Your task to perform on an android device: change the upload size in google photos Image 0: 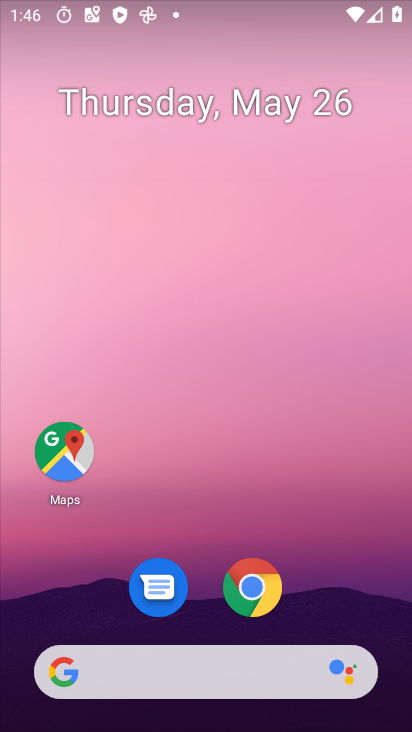
Step 0: drag from (369, 625) to (360, 255)
Your task to perform on an android device: change the upload size in google photos Image 1: 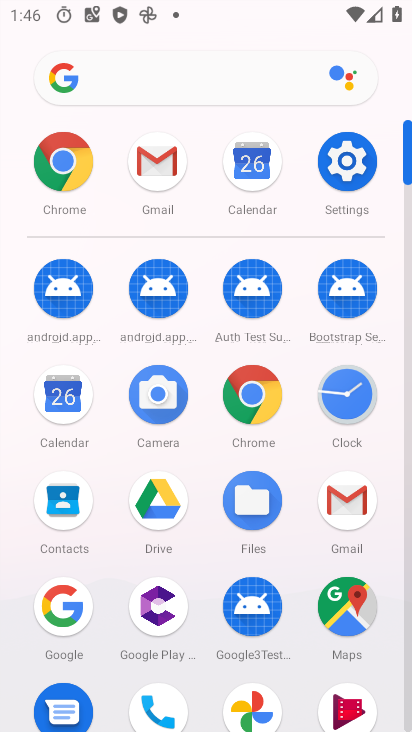
Step 1: drag from (385, 573) to (383, 340)
Your task to perform on an android device: change the upload size in google photos Image 2: 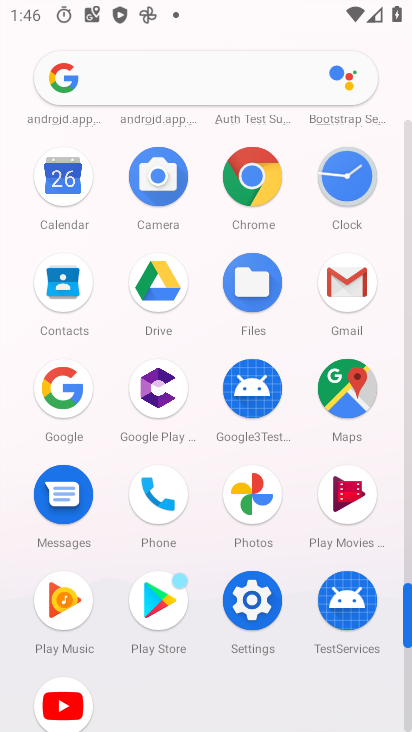
Step 2: click (259, 503)
Your task to perform on an android device: change the upload size in google photos Image 3: 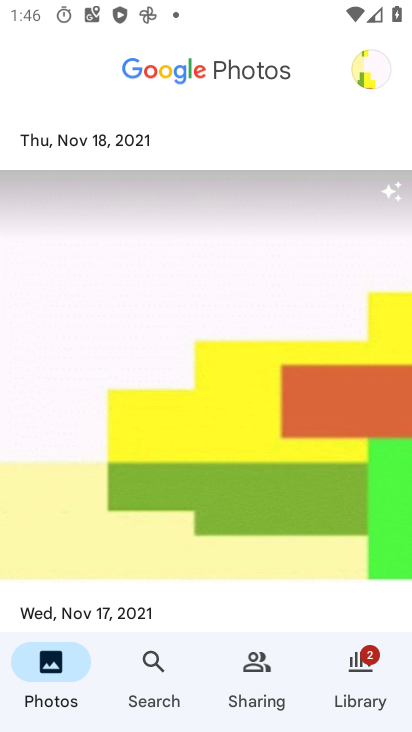
Step 3: click (373, 75)
Your task to perform on an android device: change the upload size in google photos Image 4: 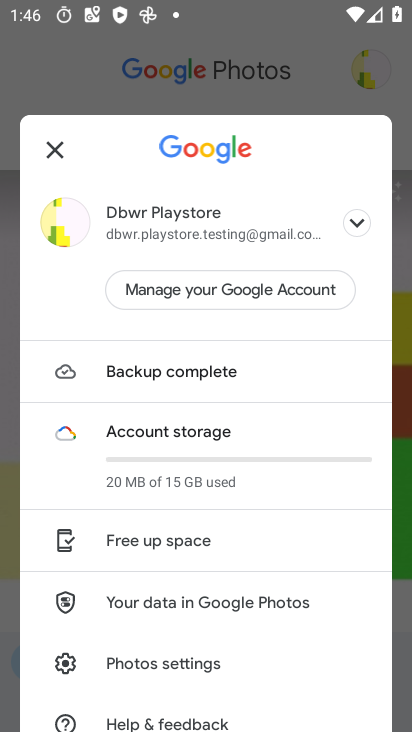
Step 4: drag from (313, 393) to (311, 225)
Your task to perform on an android device: change the upload size in google photos Image 5: 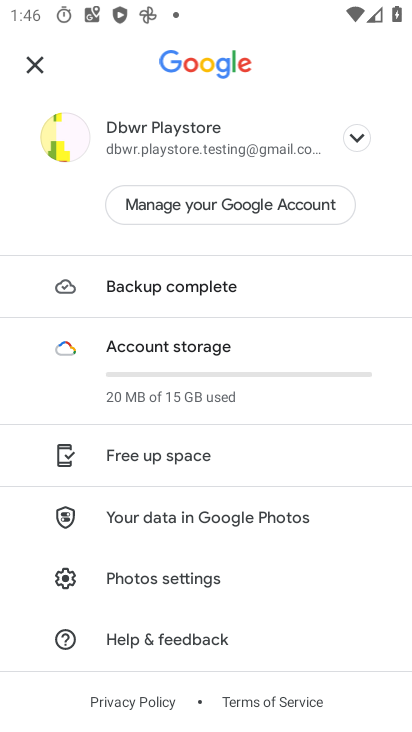
Step 5: click (226, 577)
Your task to perform on an android device: change the upload size in google photos Image 6: 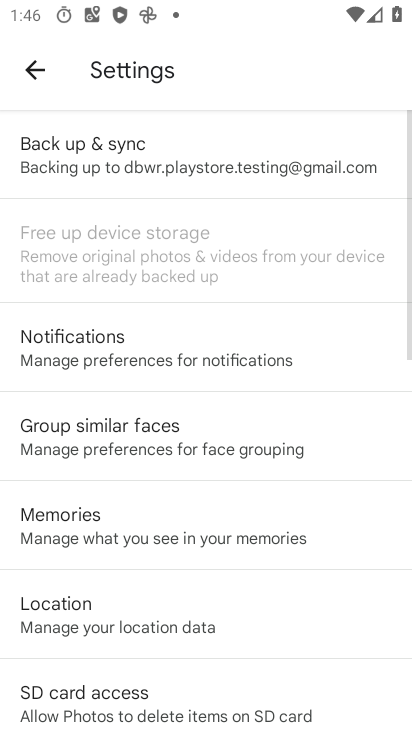
Step 6: drag from (308, 589) to (312, 496)
Your task to perform on an android device: change the upload size in google photos Image 7: 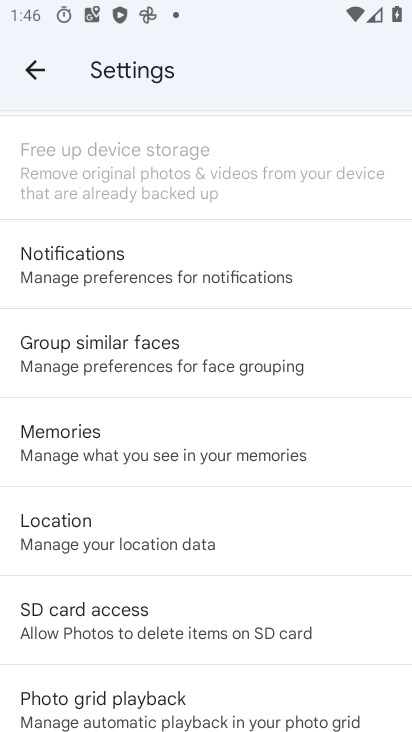
Step 7: drag from (311, 555) to (325, 468)
Your task to perform on an android device: change the upload size in google photos Image 8: 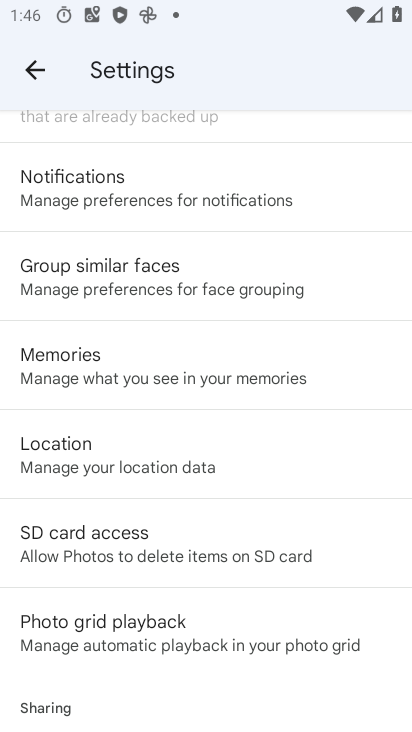
Step 8: drag from (324, 543) to (333, 477)
Your task to perform on an android device: change the upload size in google photos Image 9: 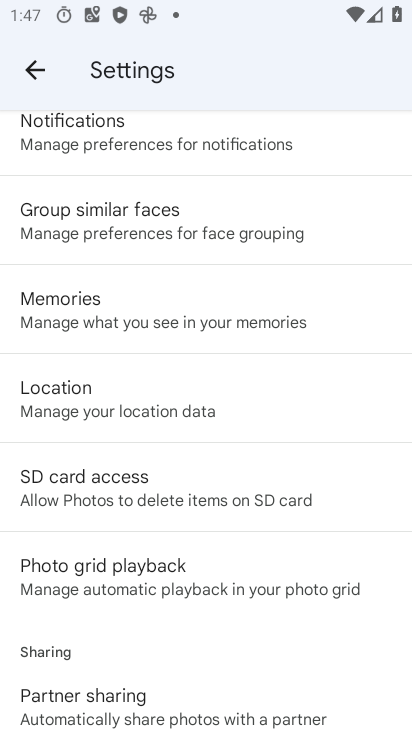
Step 9: drag from (319, 542) to (333, 473)
Your task to perform on an android device: change the upload size in google photos Image 10: 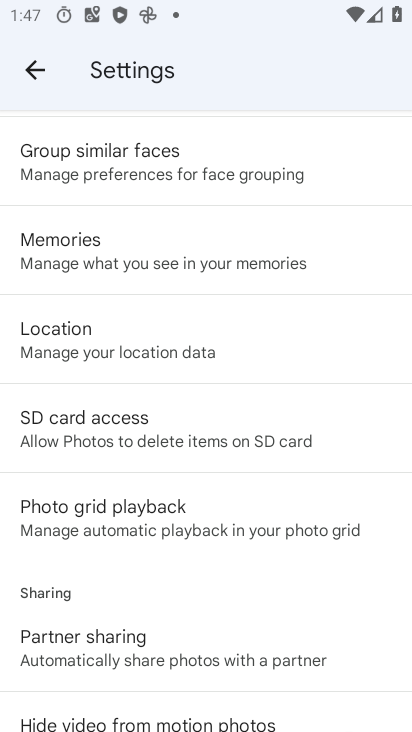
Step 10: drag from (325, 538) to (330, 467)
Your task to perform on an android device: change the upload size in google photos Image 11: 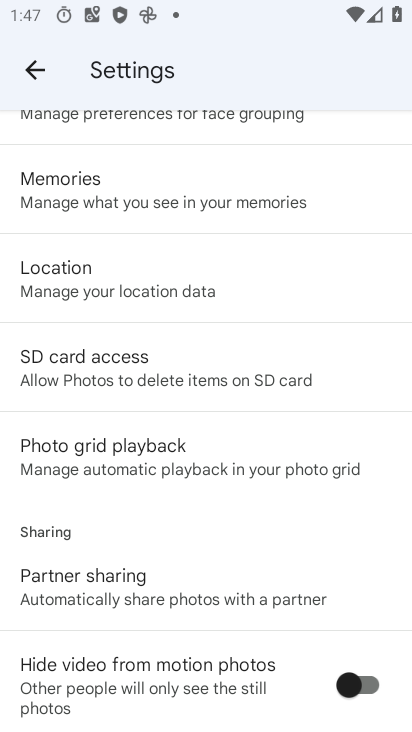
Step 11: drag from (332, 570) to (338, 496)
Your task to perform on an android device: change the upload size in google photos Image 12: 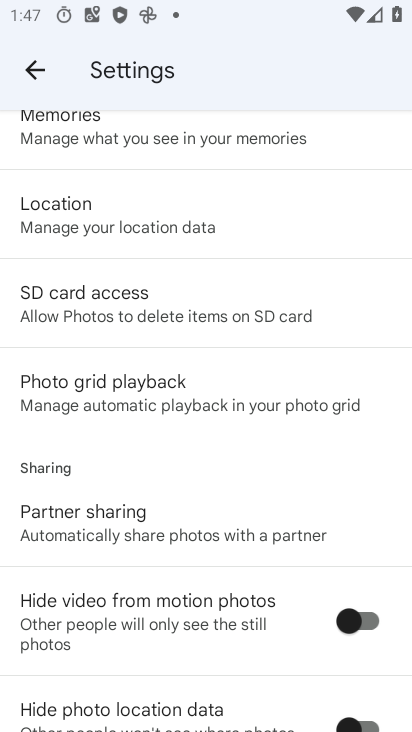
Step 12: drag from (316, 556) to (318, 504)
Your task to perform on an android device: change the upload size in google photos Image 13: 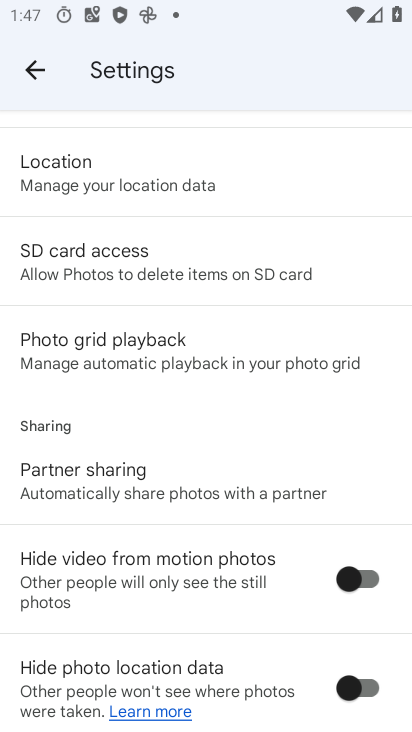
Step 13: drag from (300, 549) to (309, 508)
Your task to perform on an android device: change the upload size in google photos Image 14: 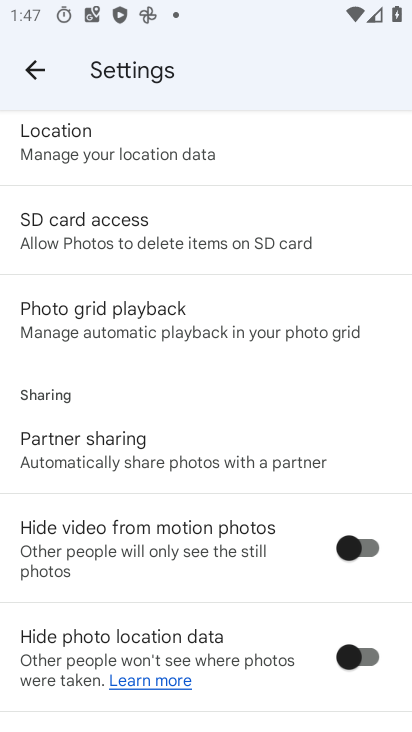
Step 14: drag from (286, 560) to (304, 506)
Your task to perform on an android device: change the upload size in google photos Image 15: 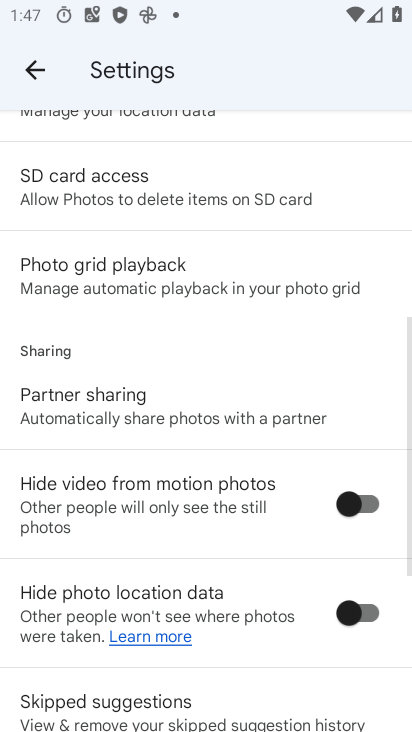
Step 15: drag from (322, 343) to (313, 421)
Your task to perform on an android device: change the upload size in google photos Image 16: 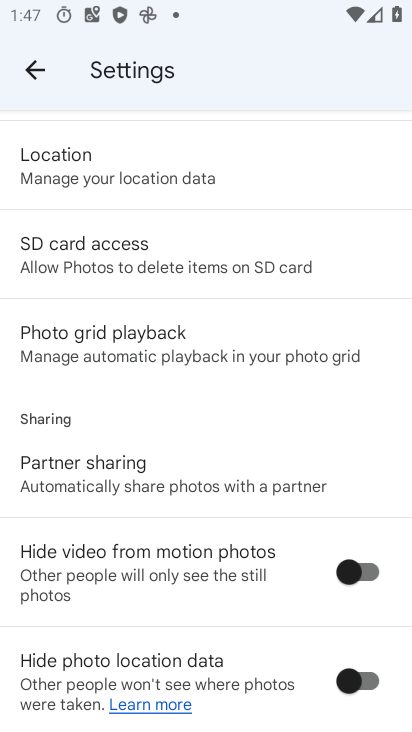
Step 16: drag from (324, 298) to (320, 372)
Your task to perform on an android device: change the upload size in google photos Image 17: 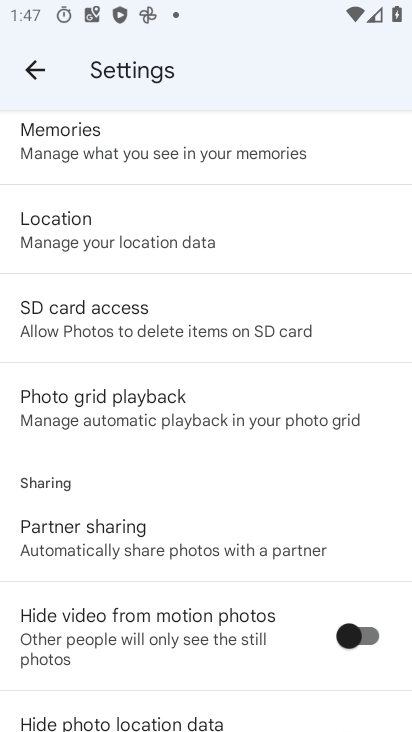
Step 17: drag from (340, 295) to (340, 381)
Your task to perform on an android device: change the upload size in google photos Image 18: 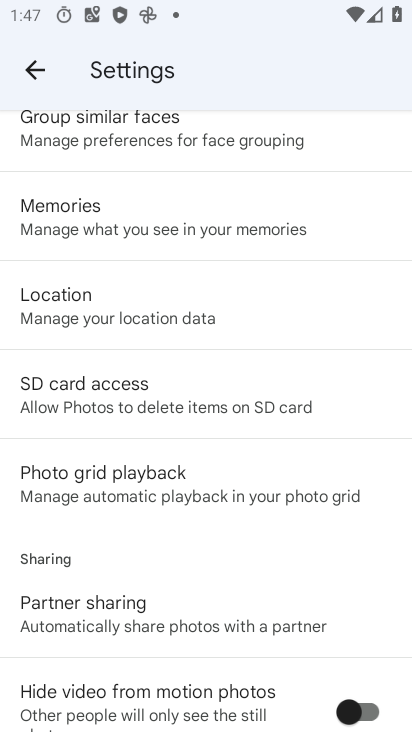
Step 18: drag from (350, 300) to (348, 370)
Your task to perform on an android device: change the upload size in google photos Image 19: 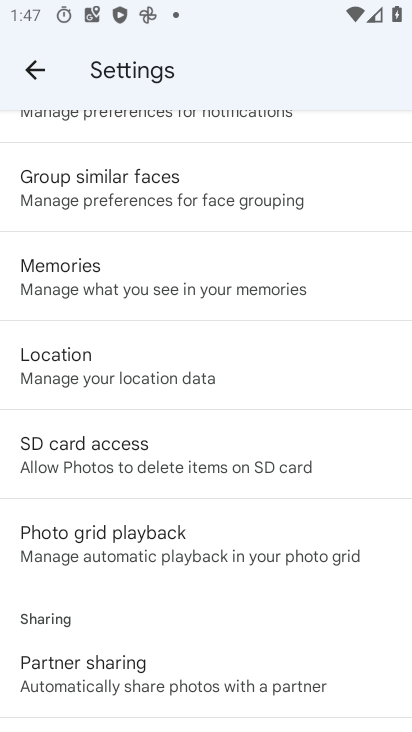
Step 19: drag from (350, 251) to (352, 318)
Your task to perform on an android device: change the upload size in google photos Image 20: 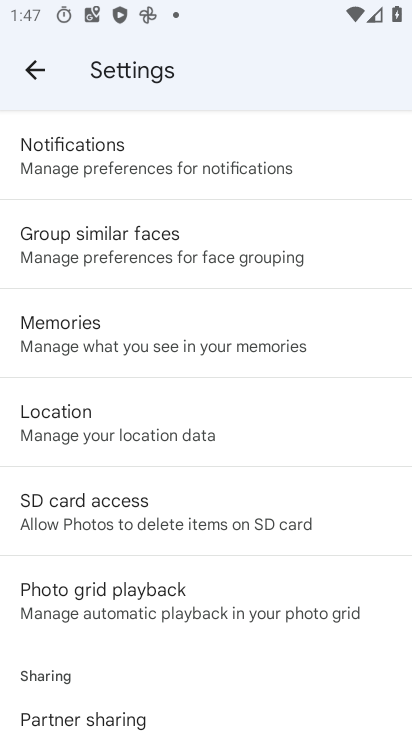
Step 20: drag from (357, 257) to (357, 324)
Your task to perform on an android device: change the upload size in google photos Image 21: 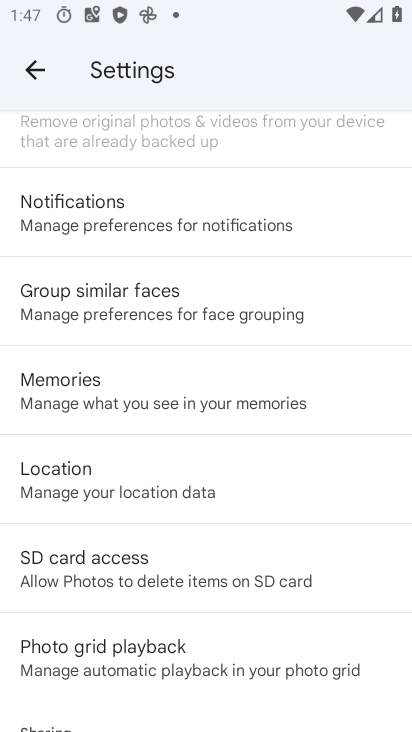
Step 21: drag from (362, 230) to (363, 315)
Your task to perform on an android device: change the upload size in google photos Image 22: 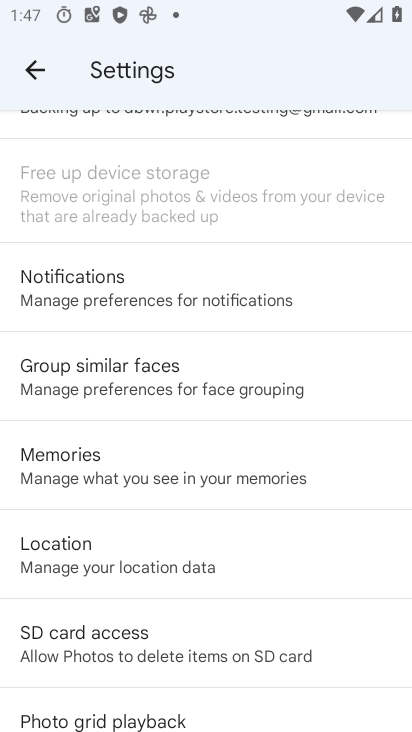
Step 22: drag from (354, 278) to (354, 340)
Your task to perform on an android device: change the upload size in google photos Image 23: 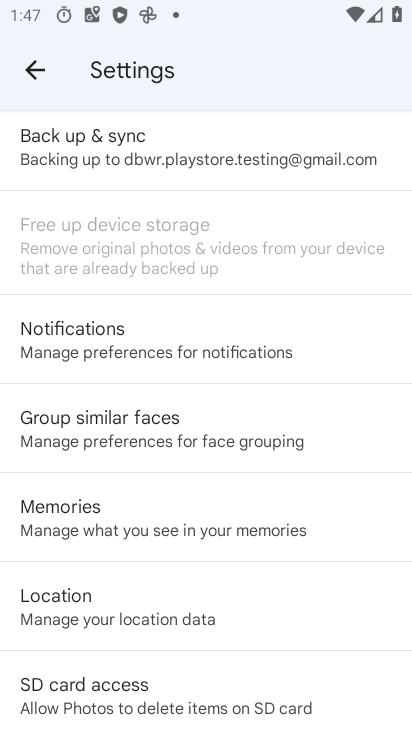
Step 23: drag from (346, 271) to (343, 343)
Your task to perform on an android device: change the upload size in google photos Image 24: 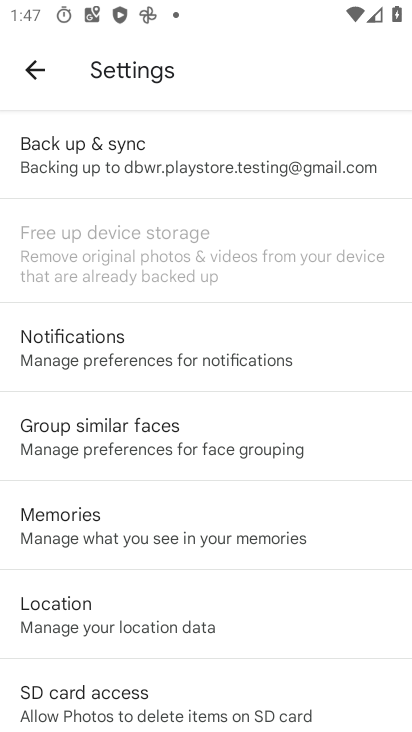
Step 24: click (253, 149)
Your task to perform on an android device: change the upload size in google photos Image 25: 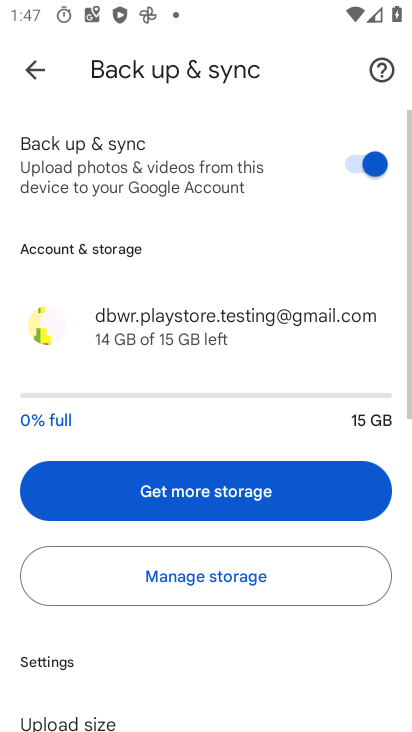
Step 25: drag from (243, 399) to (260, 323)
Your task to perform on an android device: change the upload size in google photos Image 26: 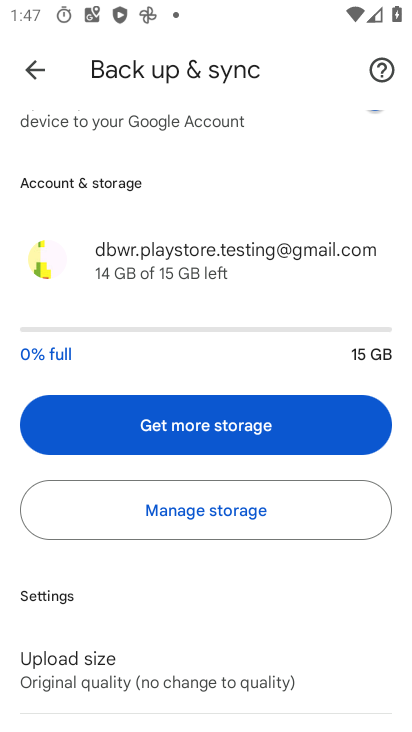
Step 26: drag from (253, 409) to (257, 329)
Your task to perform on an android device: change the upload size in google photos Image 27: 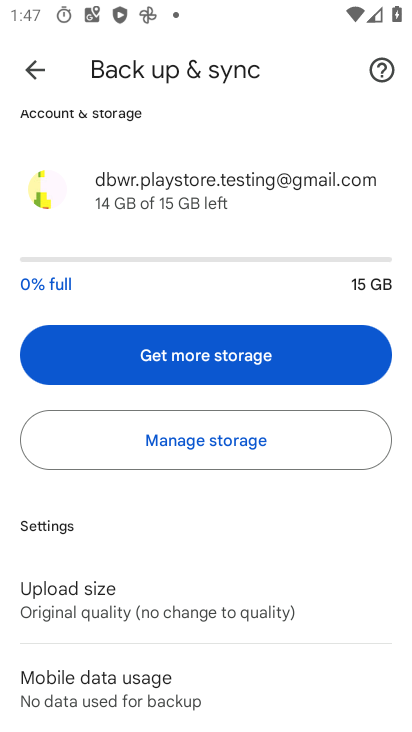
Step 27: drag from (256, 433) to (264, 361)
Your task to perform on an android device: change the upload size in google photos Image 28: 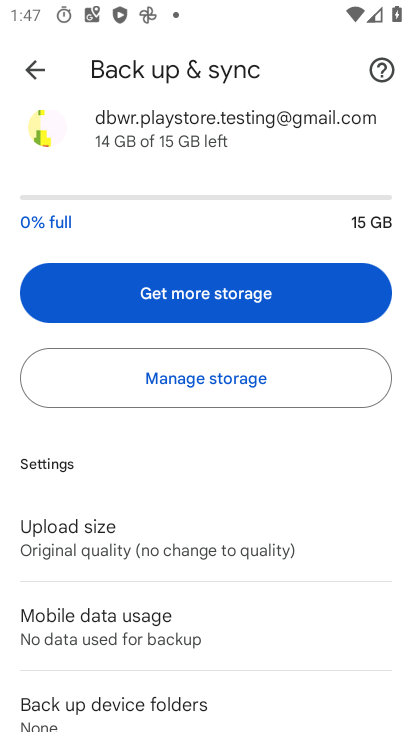
Step 28: drag from (257, 431) to (261, 365)
Your task to perform on an android device: change the upload size in google photos Image 29: 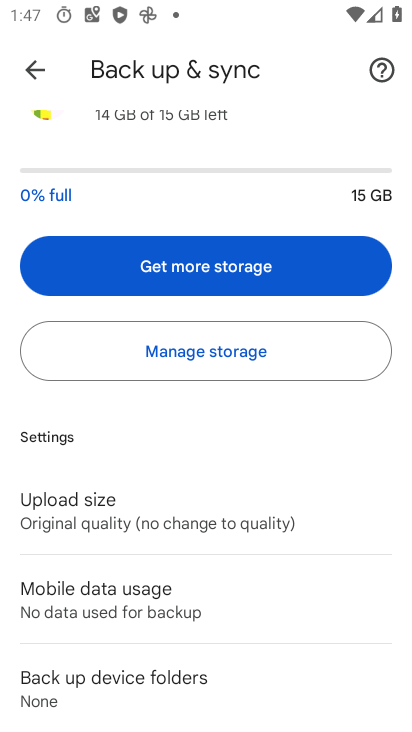
Step 29: drag from (257, 396) to (262, 335)
Your task to perform on an android device: change the upload size in google photos Image 30: 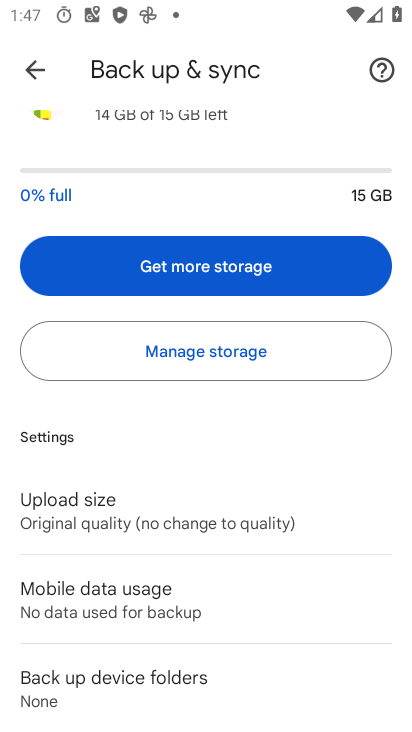
Step 30: click (201, 521)
Your task to perform on an android device: change the upload size in google photos Image 31: 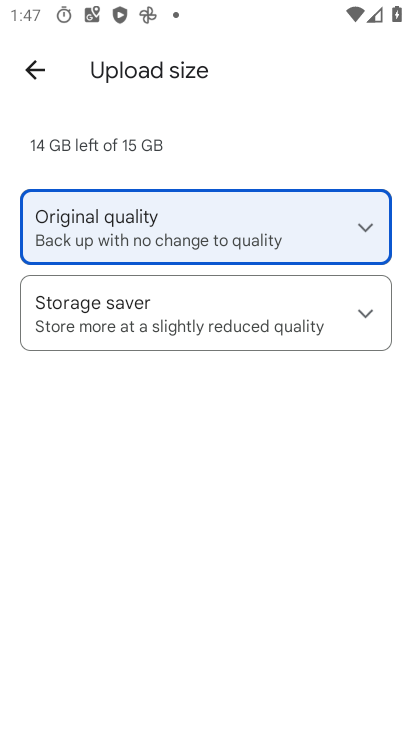
Step 31: click (185, 299)
Your task to perform on an android device: change the upload size in google photos Image 32: 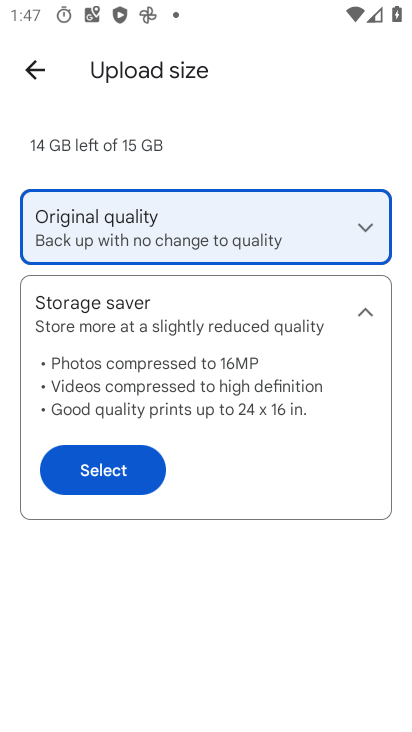
Step 32: click (121, 470)
Your task to perform on an android device: change the upload size in google photos Image 33: 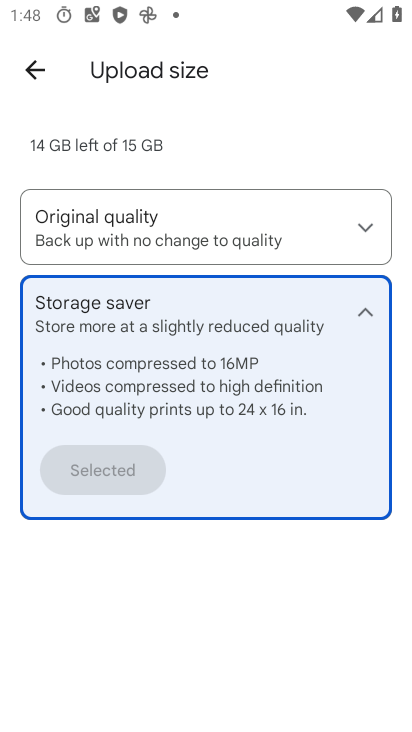
Step 33: task complete